Your task to perform on an android device: What's the weather going to be tomorrow? Image 0: 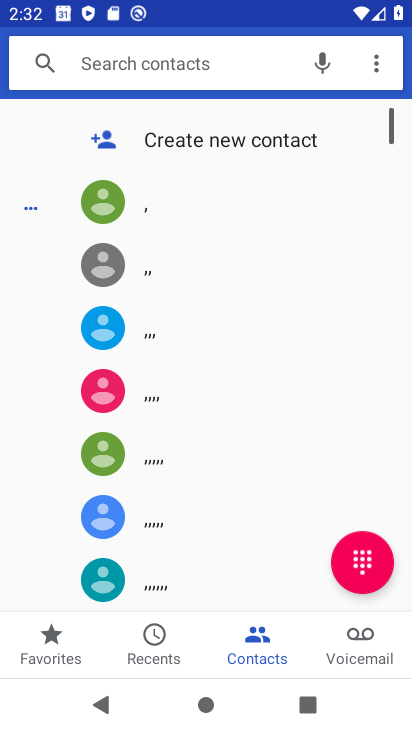
Step 0: press home button
Your task to perform on an android device: What's the weather going to be tomorrow? Image 1: 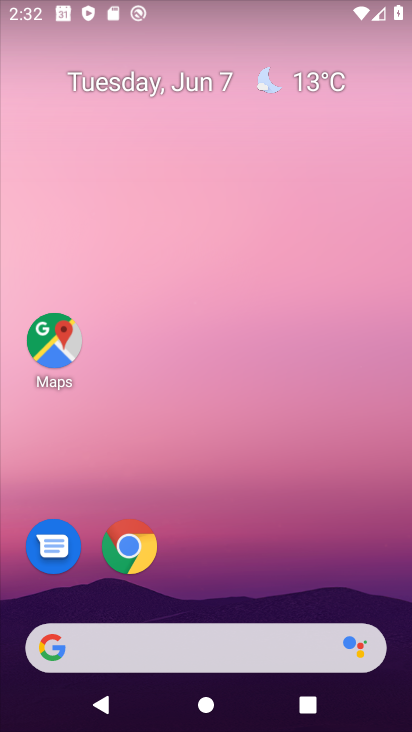
Step 1: click (318, 88)
Your task to perform on an android device: What's the weather going to be tomorrow? Image 2: 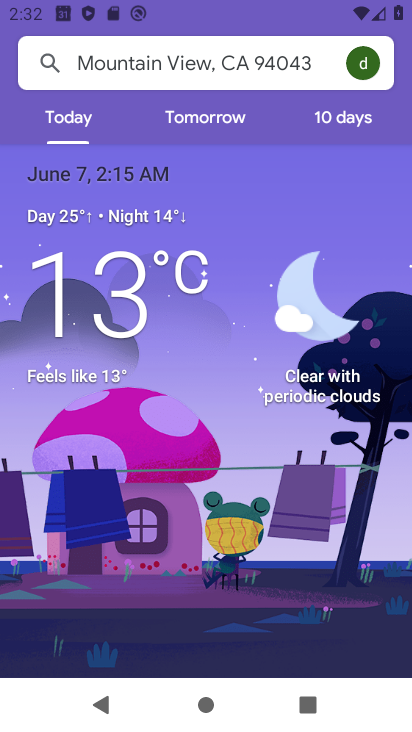
Step 2: click (231, 134)
Your task to perform on an android device: What's the weather going to be tomorrow? Image 3: 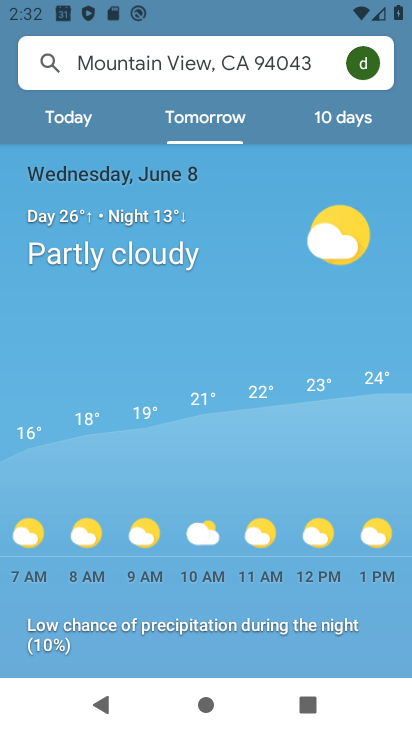
Step 3: task complete